Your task to perform on an android device: Open Yahoo.com Image 0: 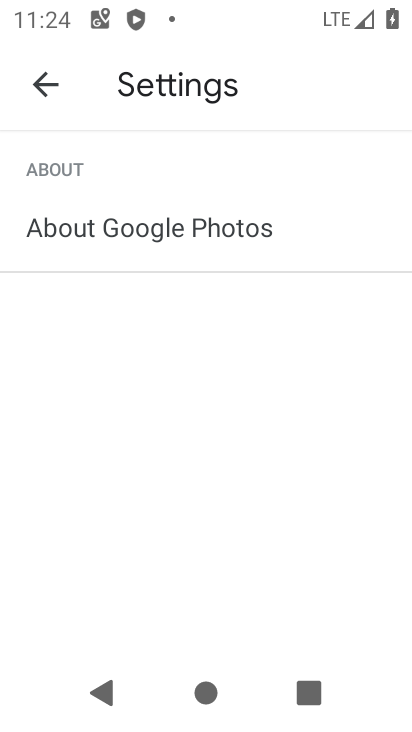
Step 0: press back button
Your task to perform on an android device: Open Yahoo.com Image 1: 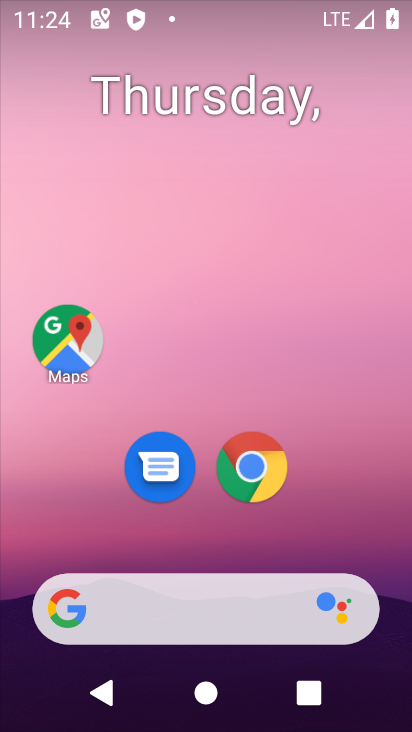
Step 1: click (227, 486)
Your task to perform on an android device: Open Yahoo.com Image 2: 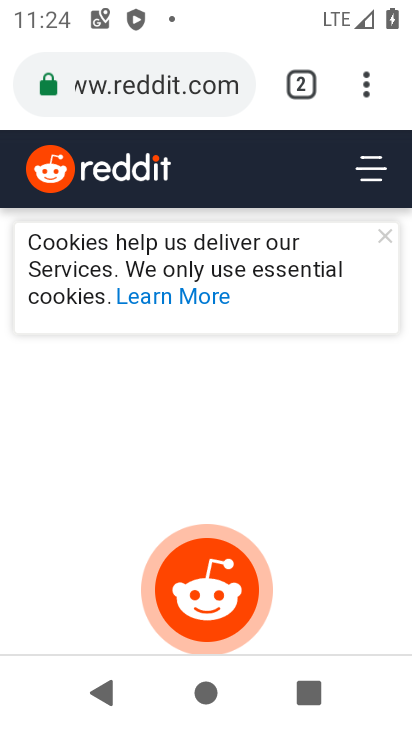
Step 2: click (300, 78)
Your task to perform on an android device: Open Yahoo.com Image 3: 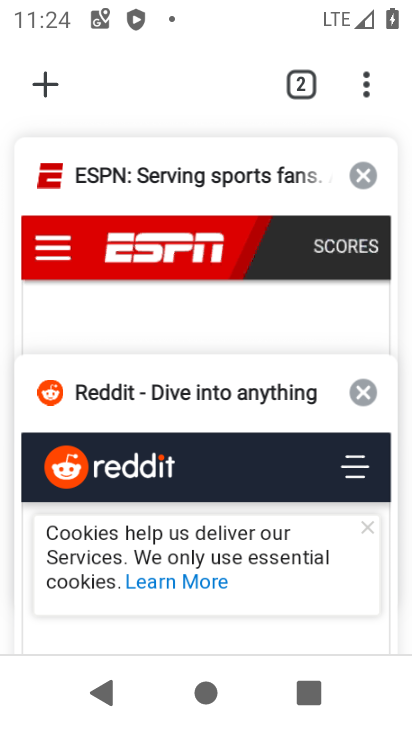
Step 3: click (47, 85)
Your task to perform on an android device: Open Yahoo.com Image 4: 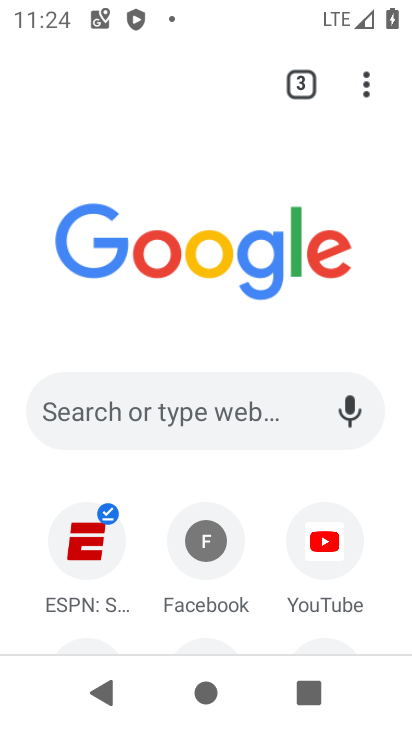
Step 4: drag from (176, 565) to (272, 180)
Your task to perform on an android device: Open Yahoo.com Image 5: 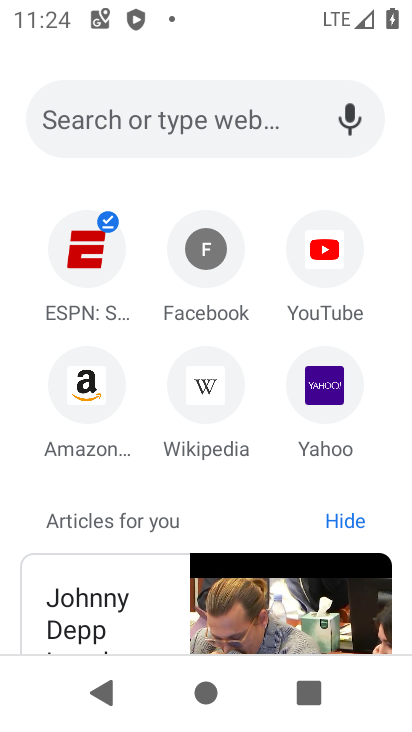
Step 5: click (327, 381)
Your task to perform on an android device: Open Yahoo.com Image 6: 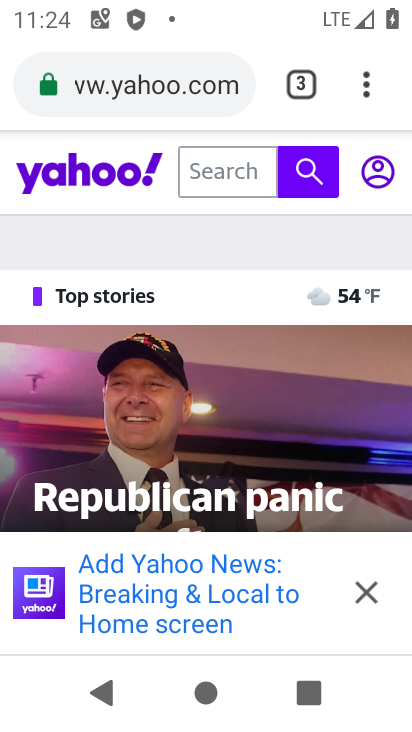
Step 6: task complete